Your task to perform on an android device: turn pop-ups off in chrome Image 0: 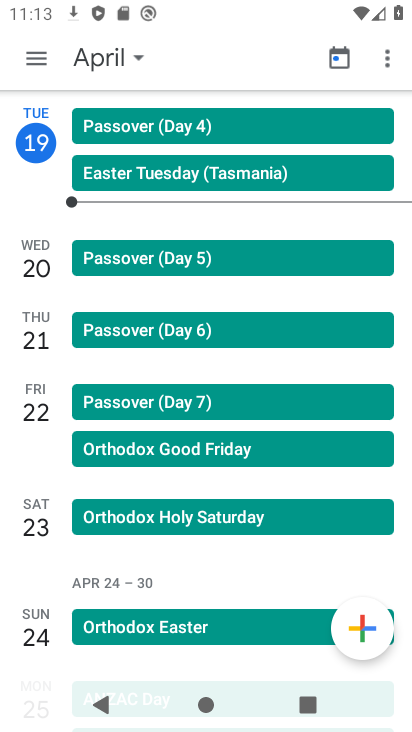
Step 0: press back button
Your task to perform on an android device: turn pop-ups off in chrome Image 1: 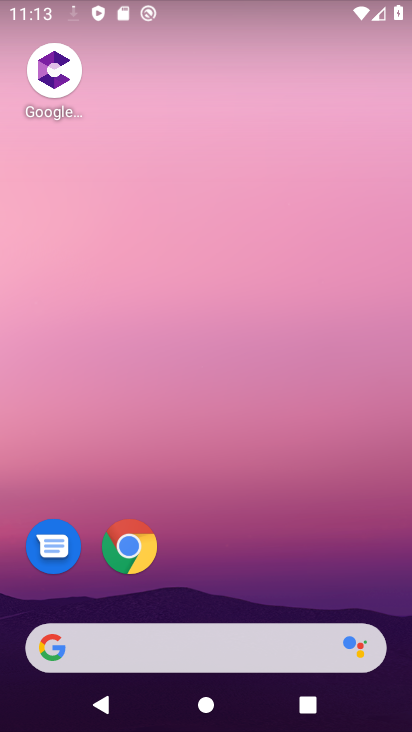
Step 1: drag from (199, 580) to (306, 101)
Your task to perform on an android device: turn pop-ups off in chrome Image 2: 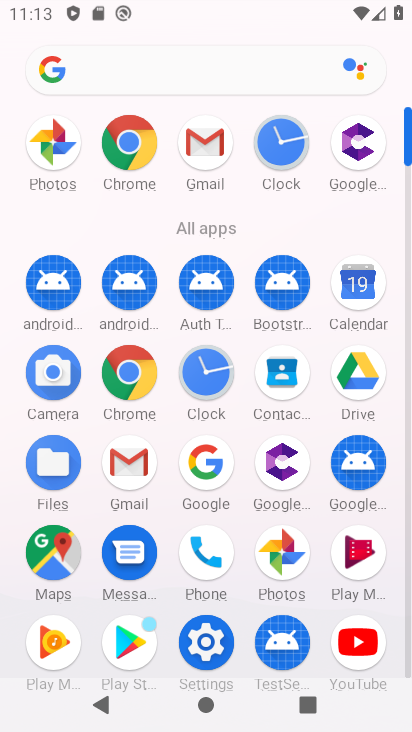
Step 2: click (128, 371)
Your task to perform on an android device: turn pop-ups off in chrome Image 3: 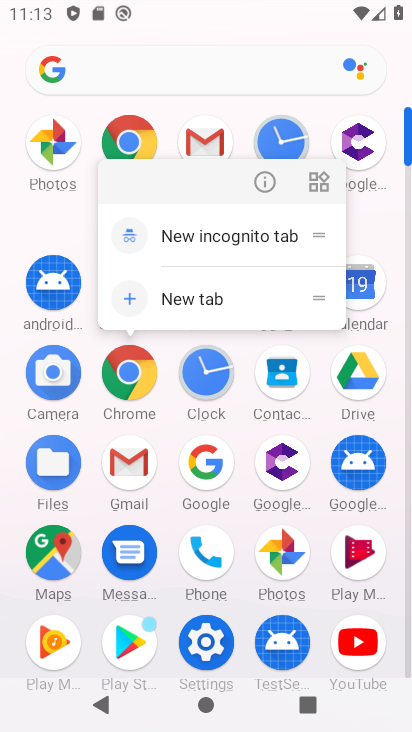
Step 3: click (127, 394)
Your task to perform on an android device: turn pop-ups off in chrome Image 4: 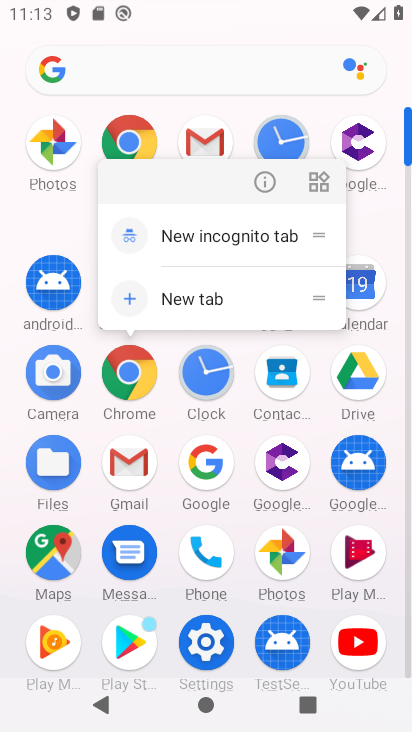
Step 4: click (119, 368)
Your task to perform on an android device: turn pop-ups off in chrome Image 5: 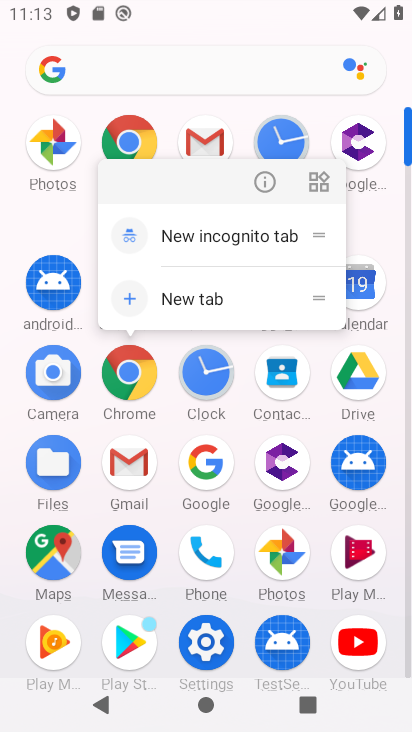
Step 5: click (137, 378)
Your task to perform on an android device: turn pop-ups off in chrome Image 6: 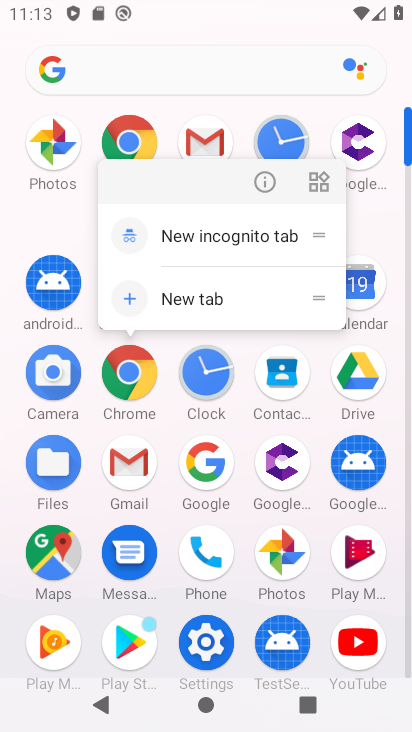
Step 6: click (158, 382)
Your task to perform on an android device: turn pop-ups off in chrome Image 7: 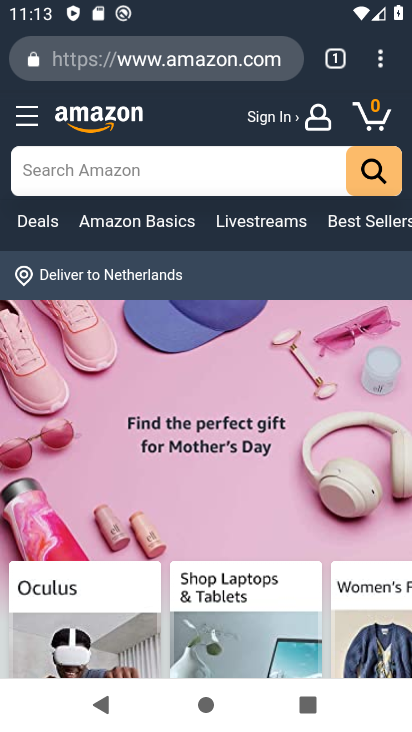
Step 7: drag from (391, 63) to (283, 556)
Your task to perform on an android device: turn pop-ups off in chrome Image 8: 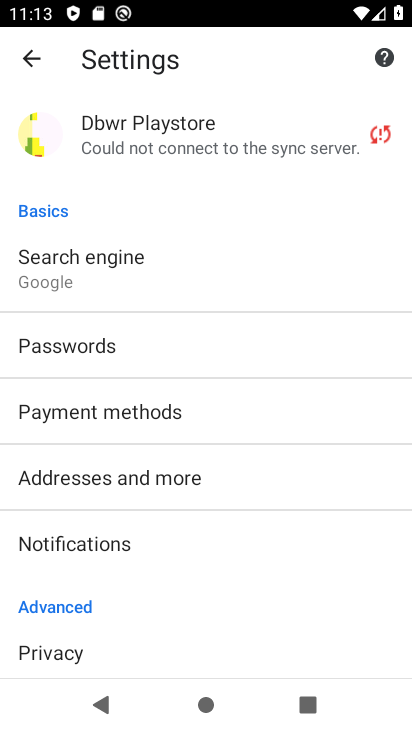
Step 8: drag from (133, 631) to (316, 226)
Your task to perform on an android device: turn pop-ups off in chrome Image 9: 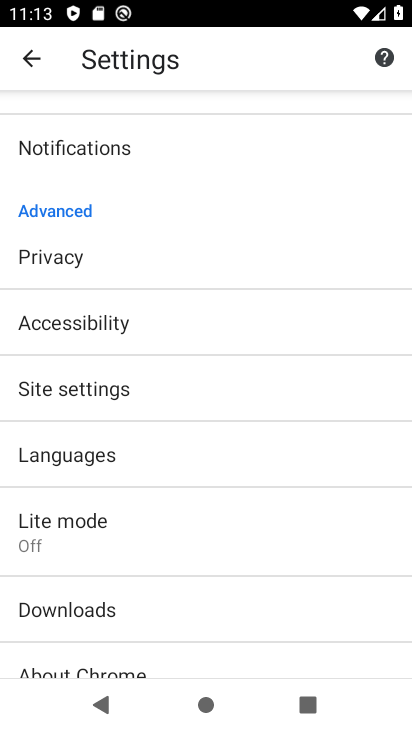
Step 9: click (203, 396)
Your task to perform on an android device: turn pop-ups off in chrome Image 10: 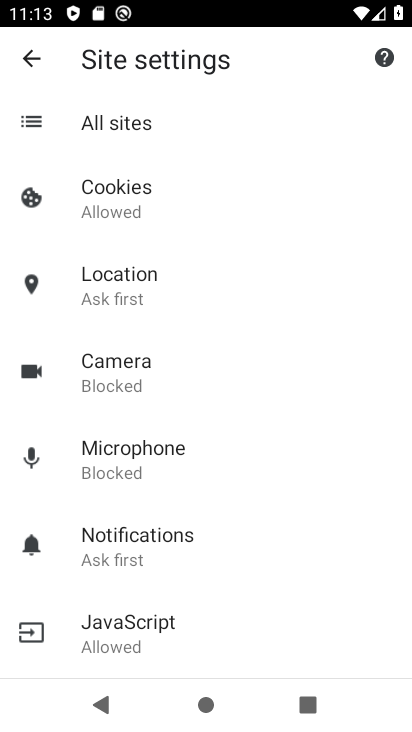
Step 10: drag from (166, 491) to (270, 207)
Your task to perform on an android device: turn pop-ups off in chrome Image 11: 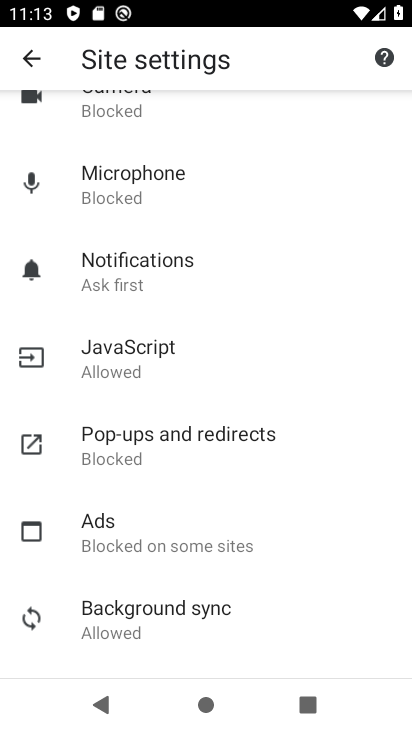
Step 11: click (230, 457)
Your task to perform on an android device: turn pop-ups off in chrome Image 12: 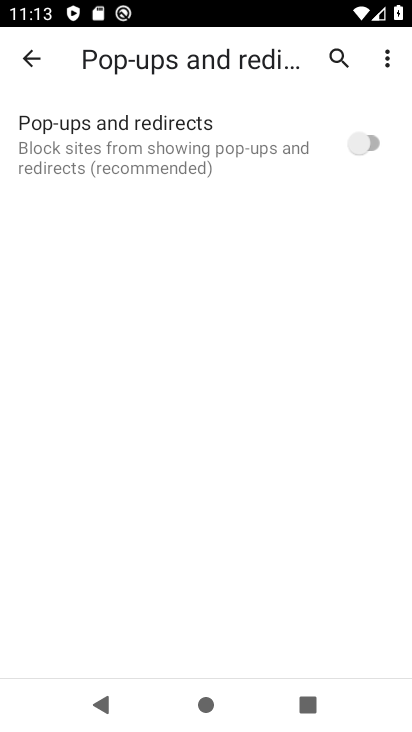
Step 12: task complete